Your task to perform on an android device: What's on my calendar today? Image 0: 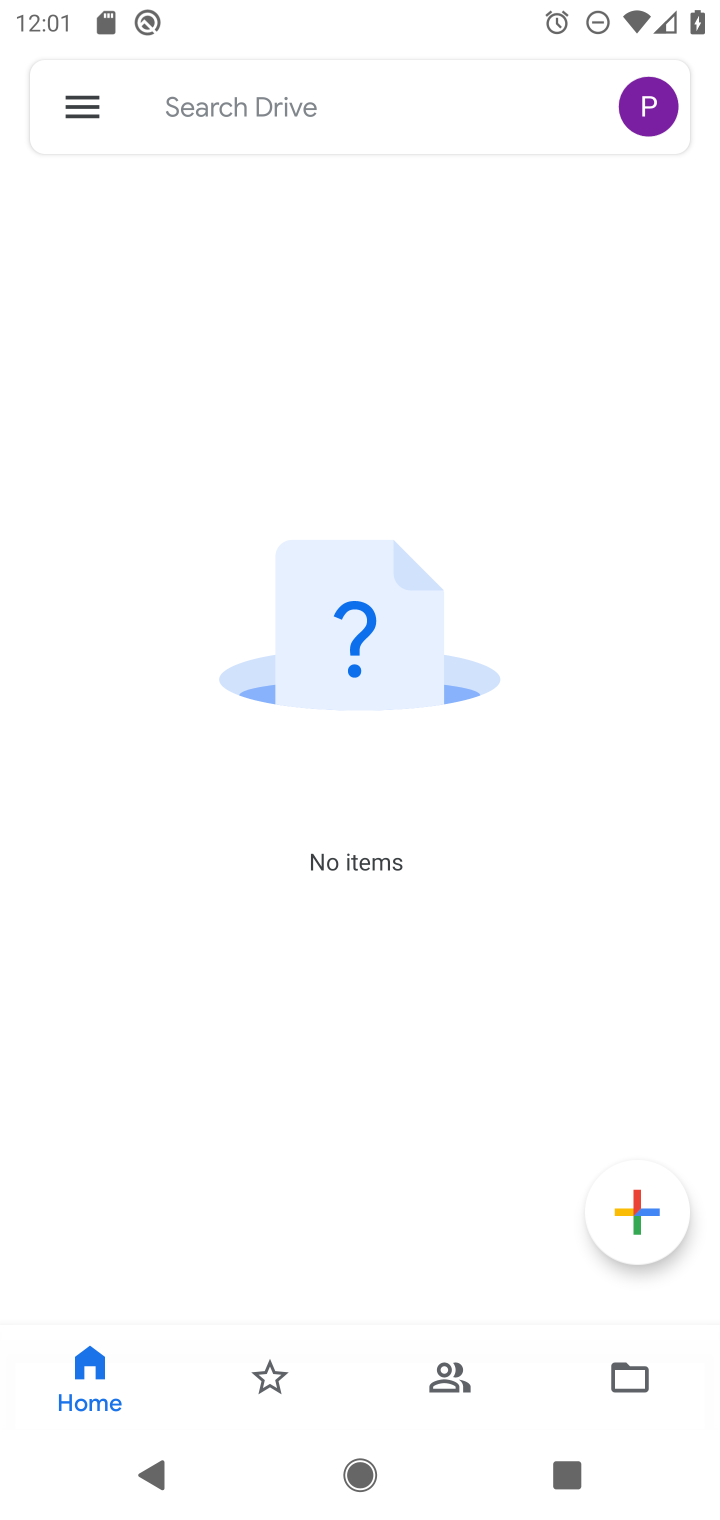
Step 0: press home button
Your task to perform on an android device: What's on my calendar today? Image 1: 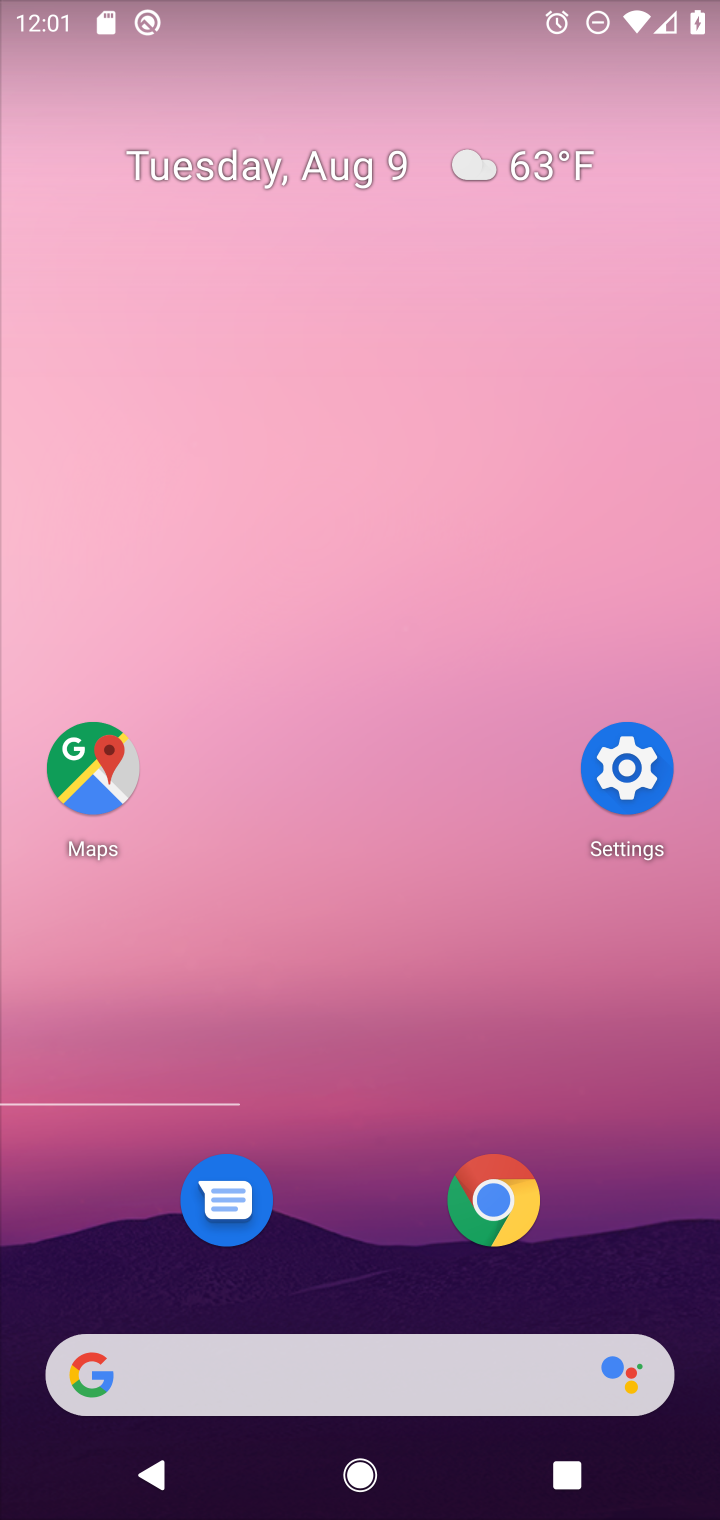
Step 1: drag from (328, 954) to (383, 476)
Your task to perform on an android device: What's on my calendar today? Image 2: 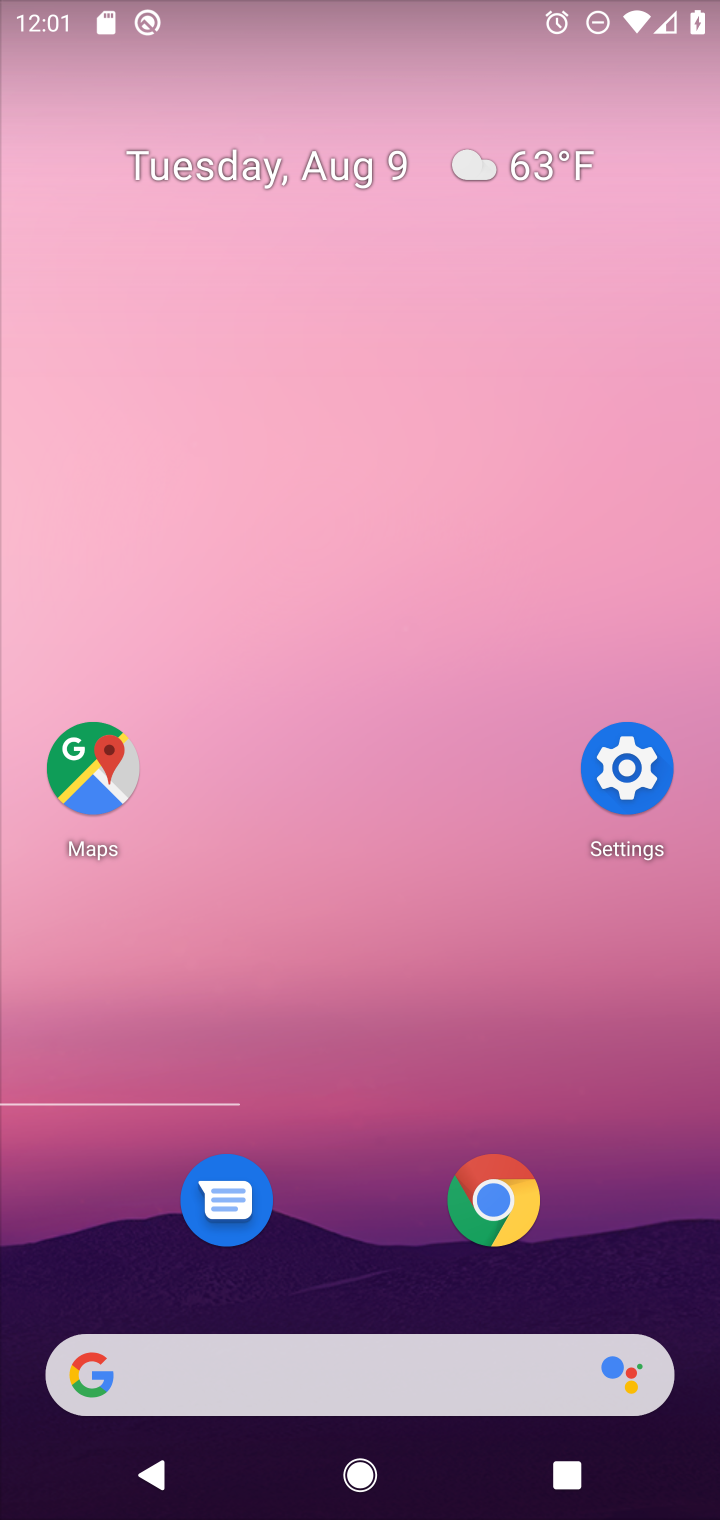
Step 2: drag from (361, 1363) to (480, 341)
Your task to perform on an android device: What's on my calendar today? Image 3: 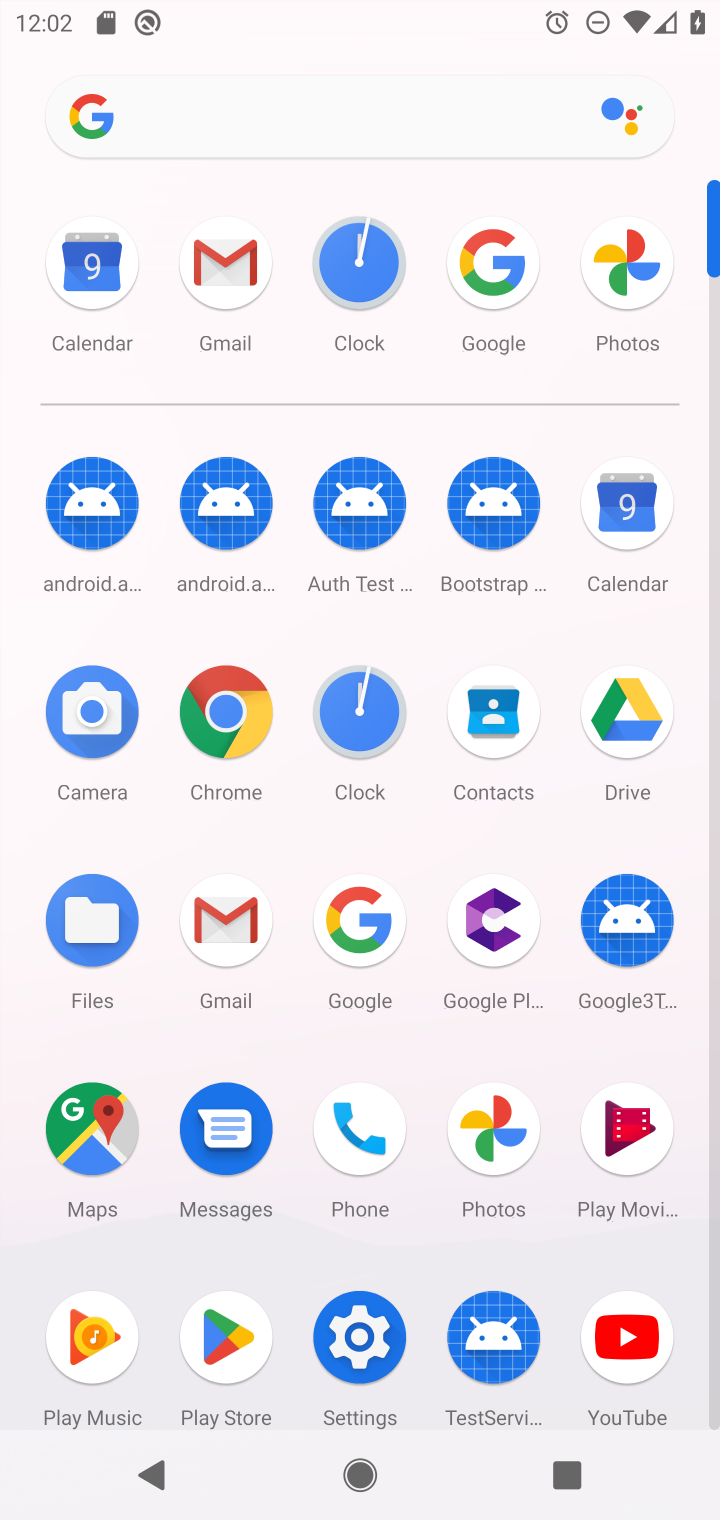
Step 3: click (634, 523)
Your task to perform on an android device: What's on my calendar today? Image 4: 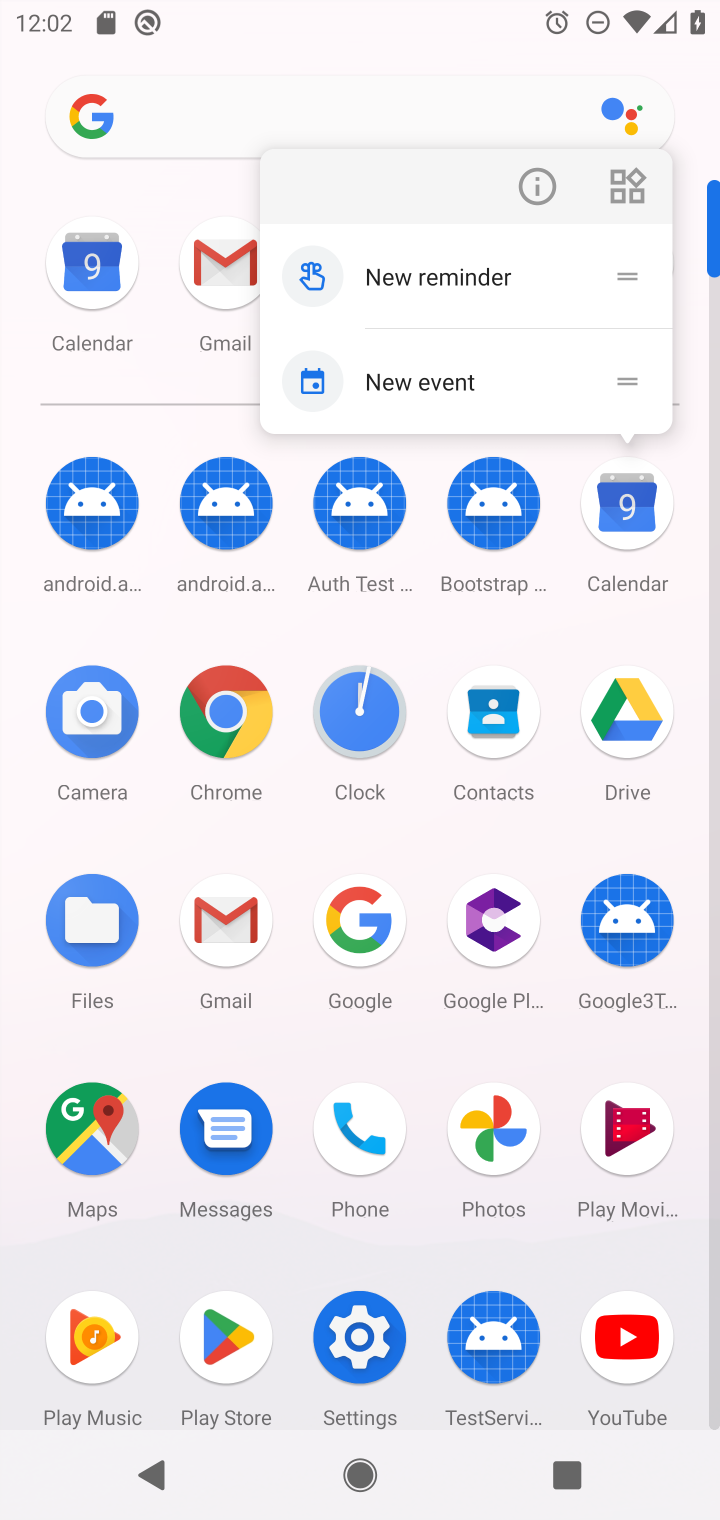
Step 4: click (634, 521)
Your task to perform on an android device: What's on my calendar today? Image 5: 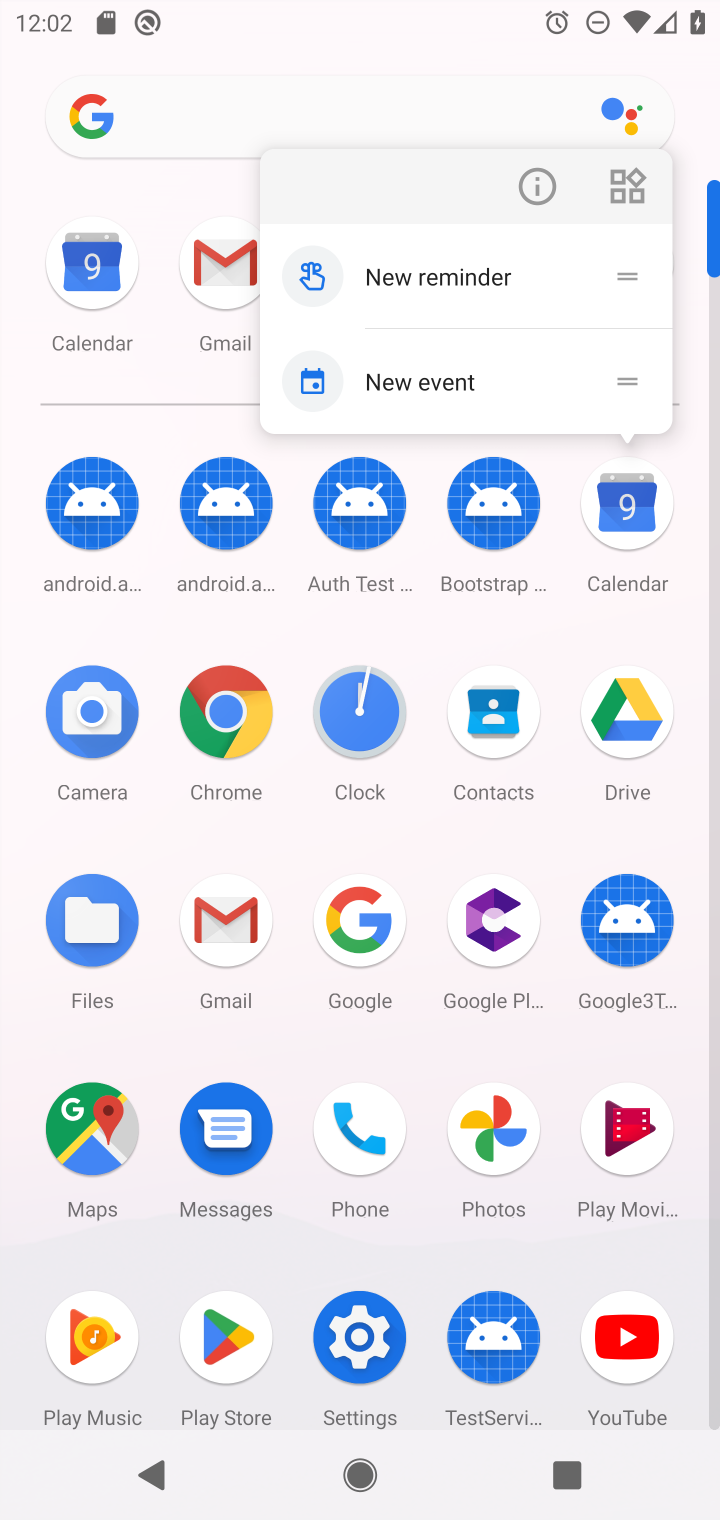
Step 5: click (618, 513)
Your task to perform on an android device: What's on my calendar today? Image 6: 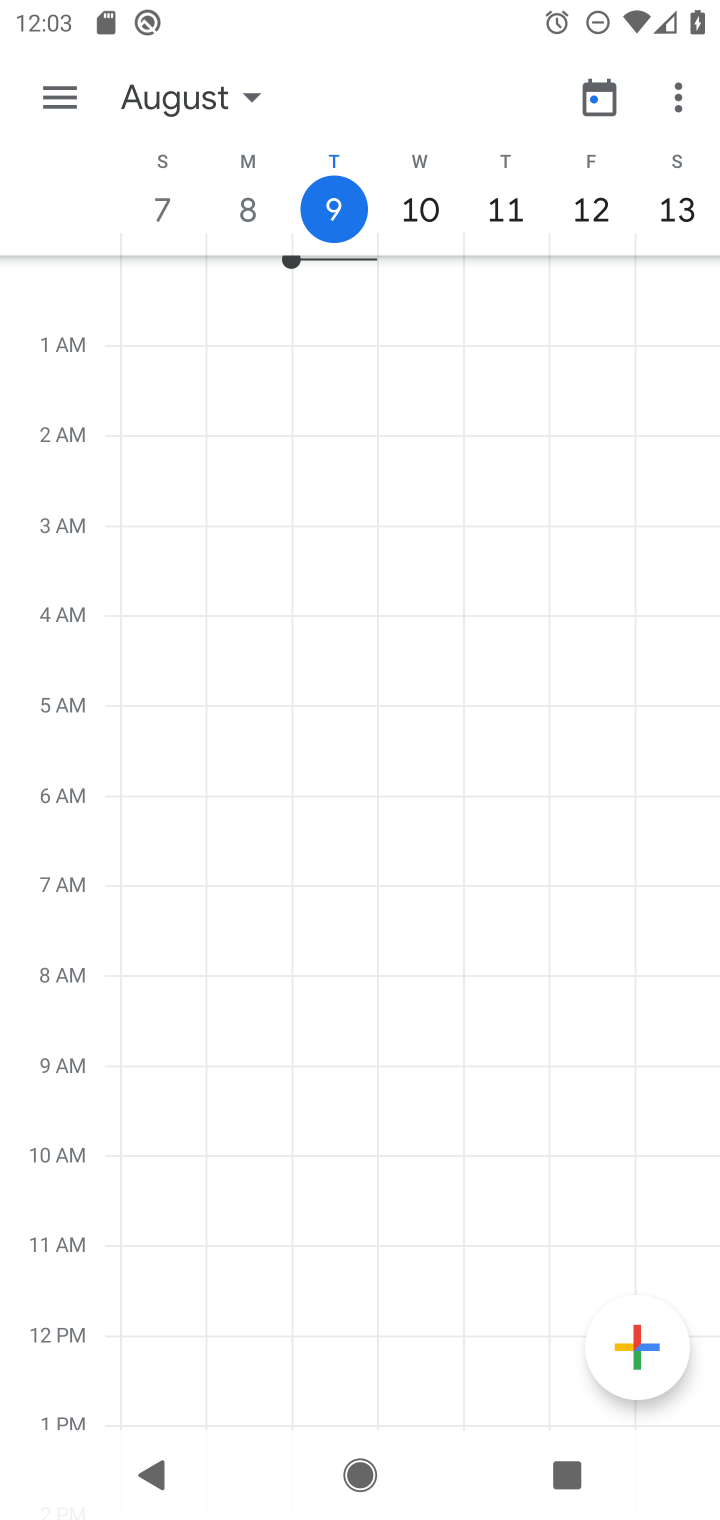
Step 6: click (173, 98)
Your task to perform on an android device: What's on my calendar today? Image 7: 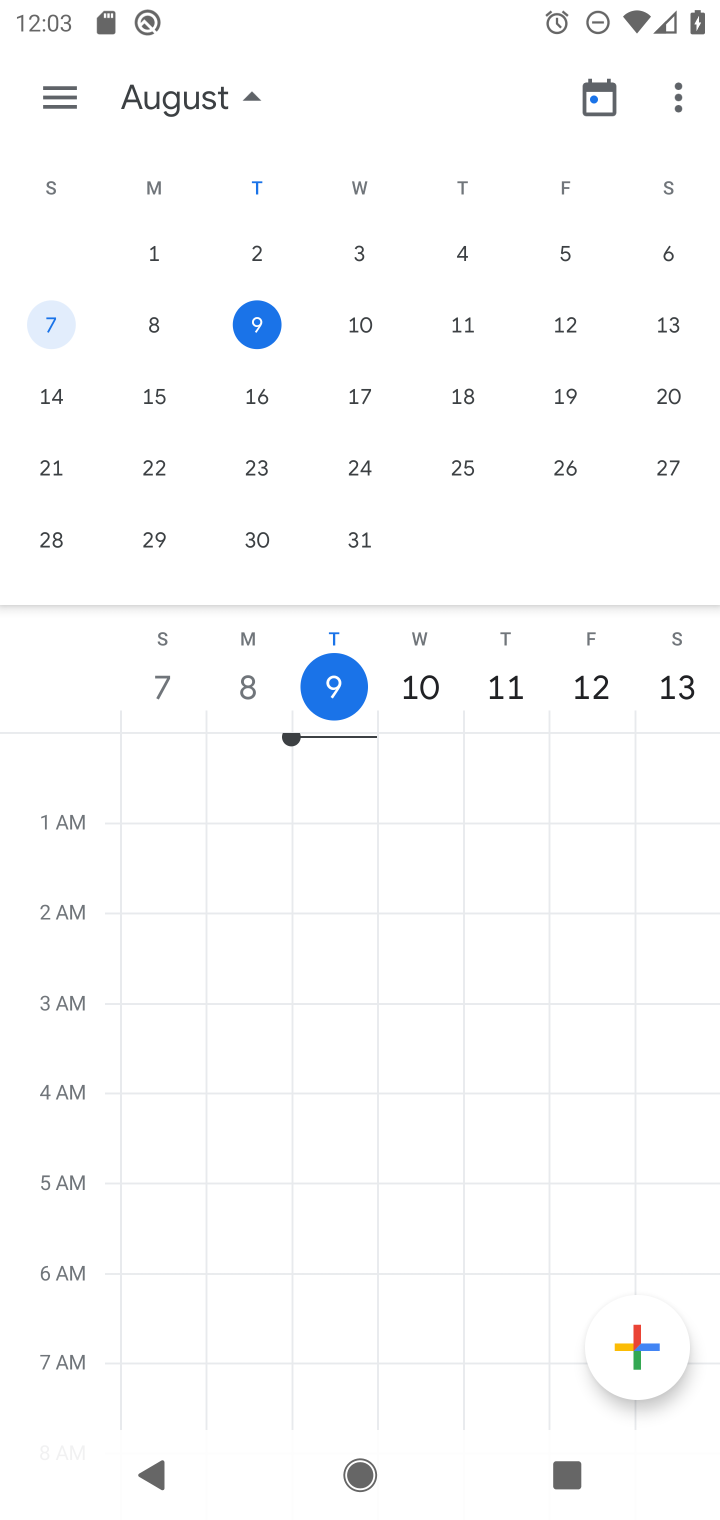
Step 7: click (274, 318)
Your task to perform on an android device: What's on my calendar today? Image 8: 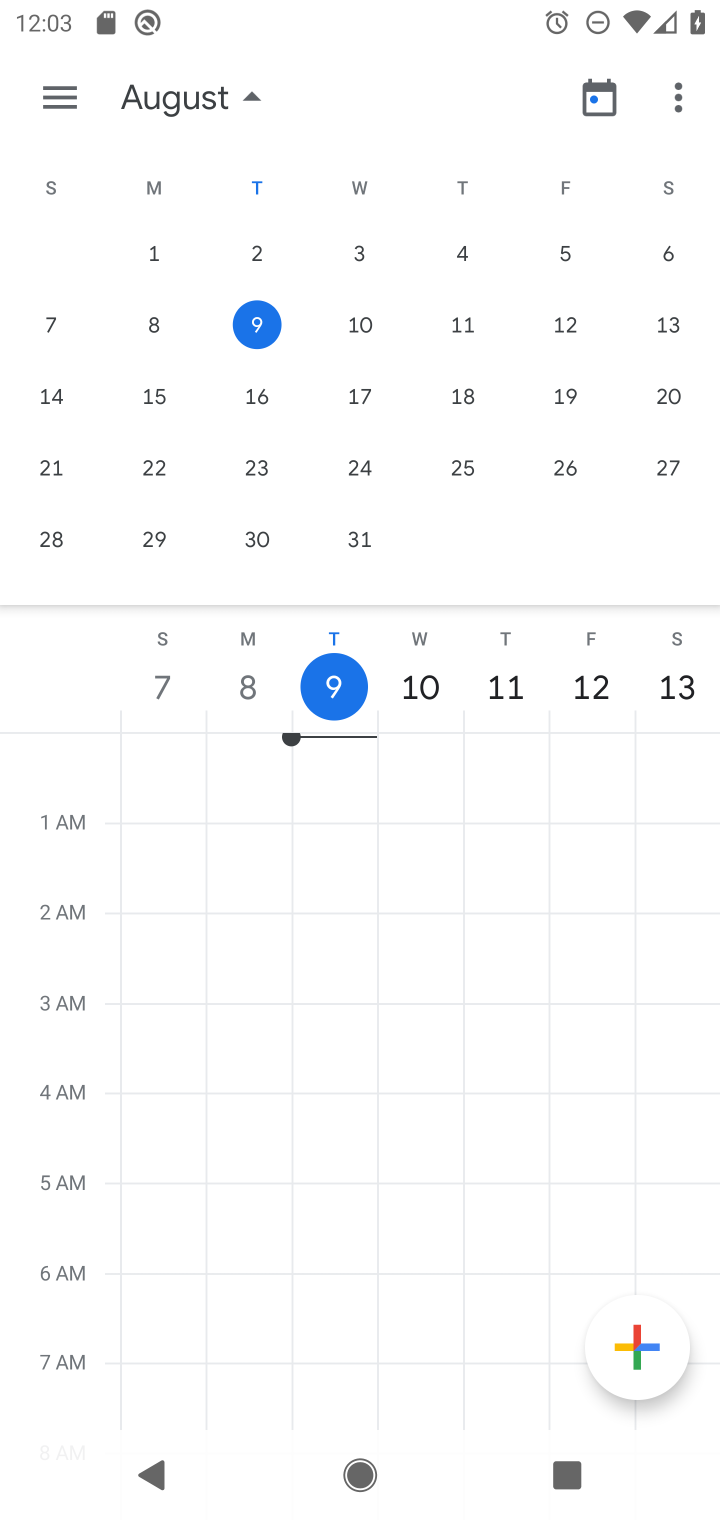
Step 8: click (76, 97)
Your task to perform on an android device: What's on my calendar today? Image 9: 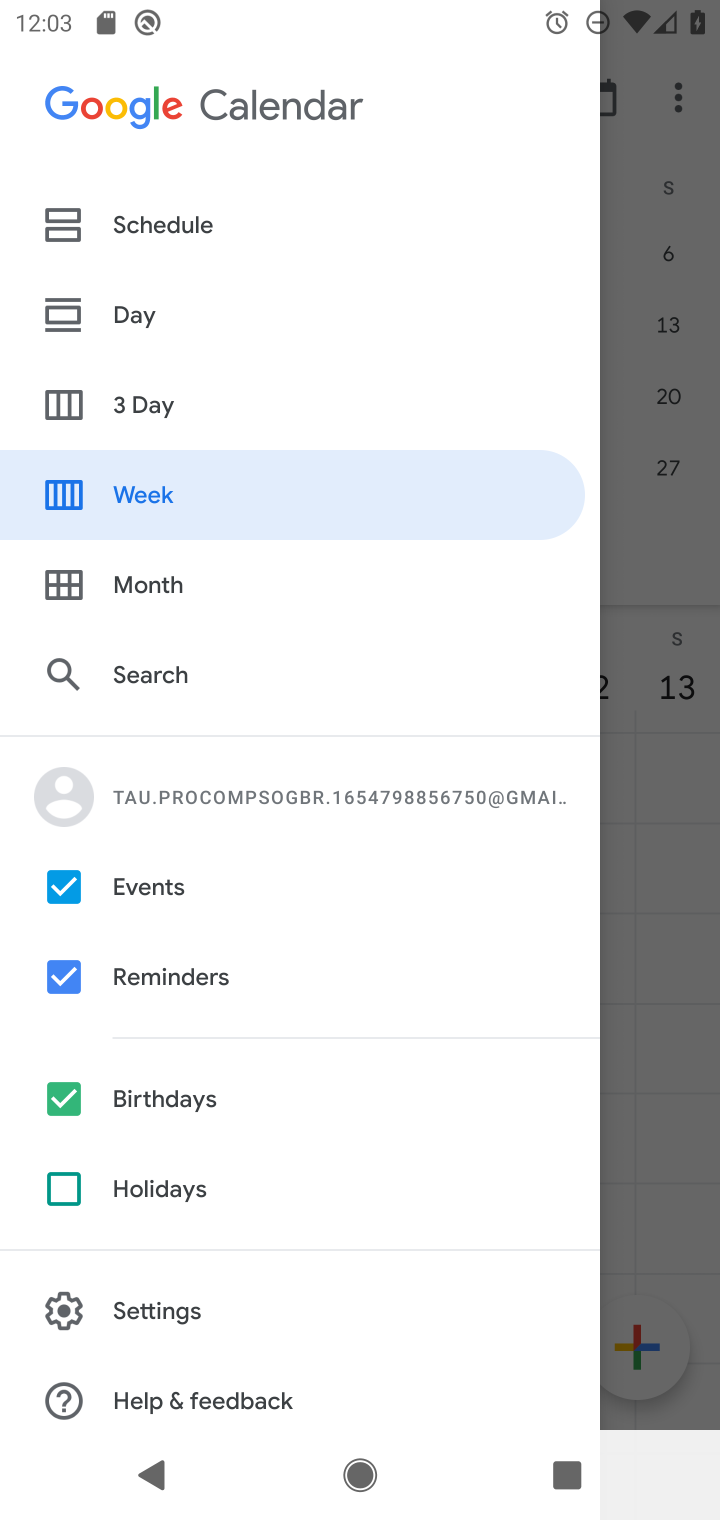
Step 9: click (128, 313)
Your task to perform on an android device: What's on my calendar today? Image 10: 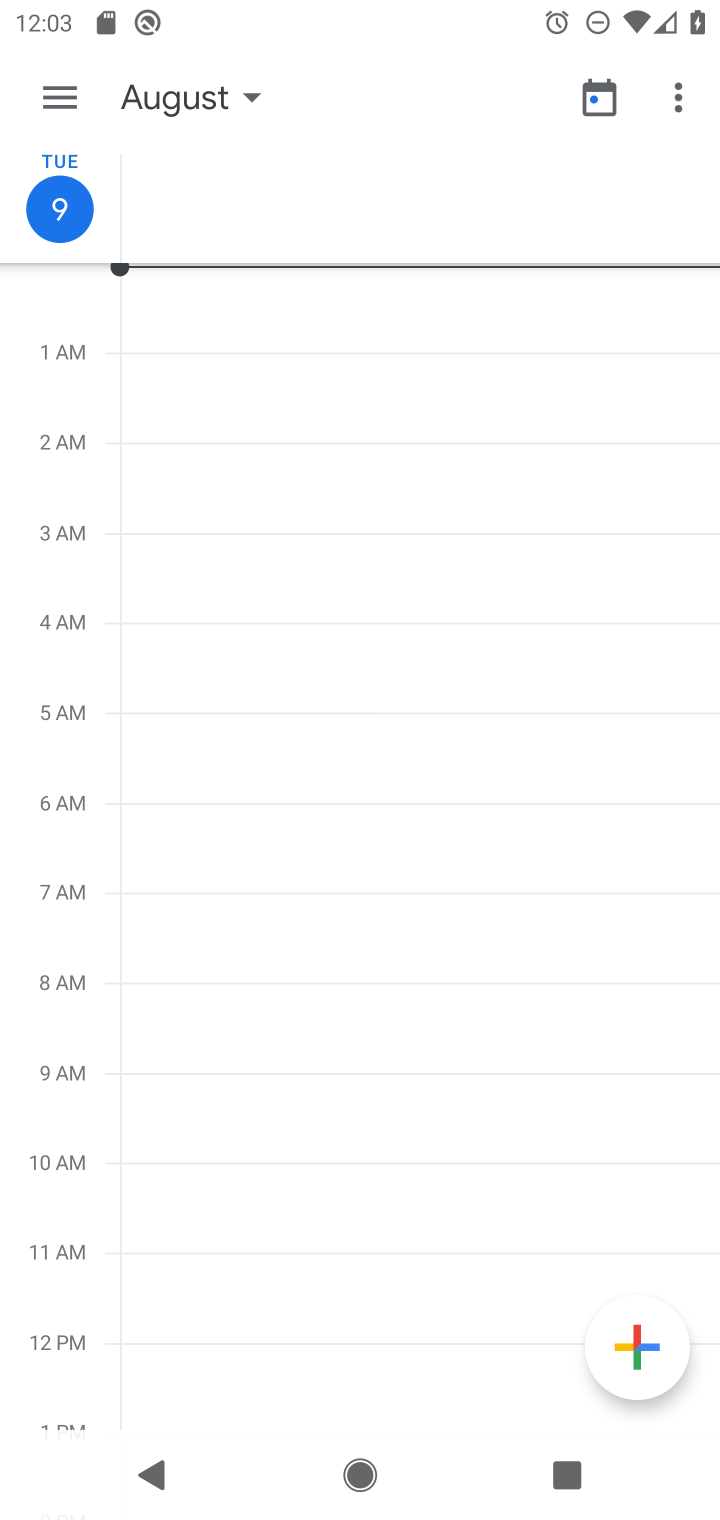
Step 10: click (61, 95)
Your task to perform on an android device: What's on my calendar today? Image 11: 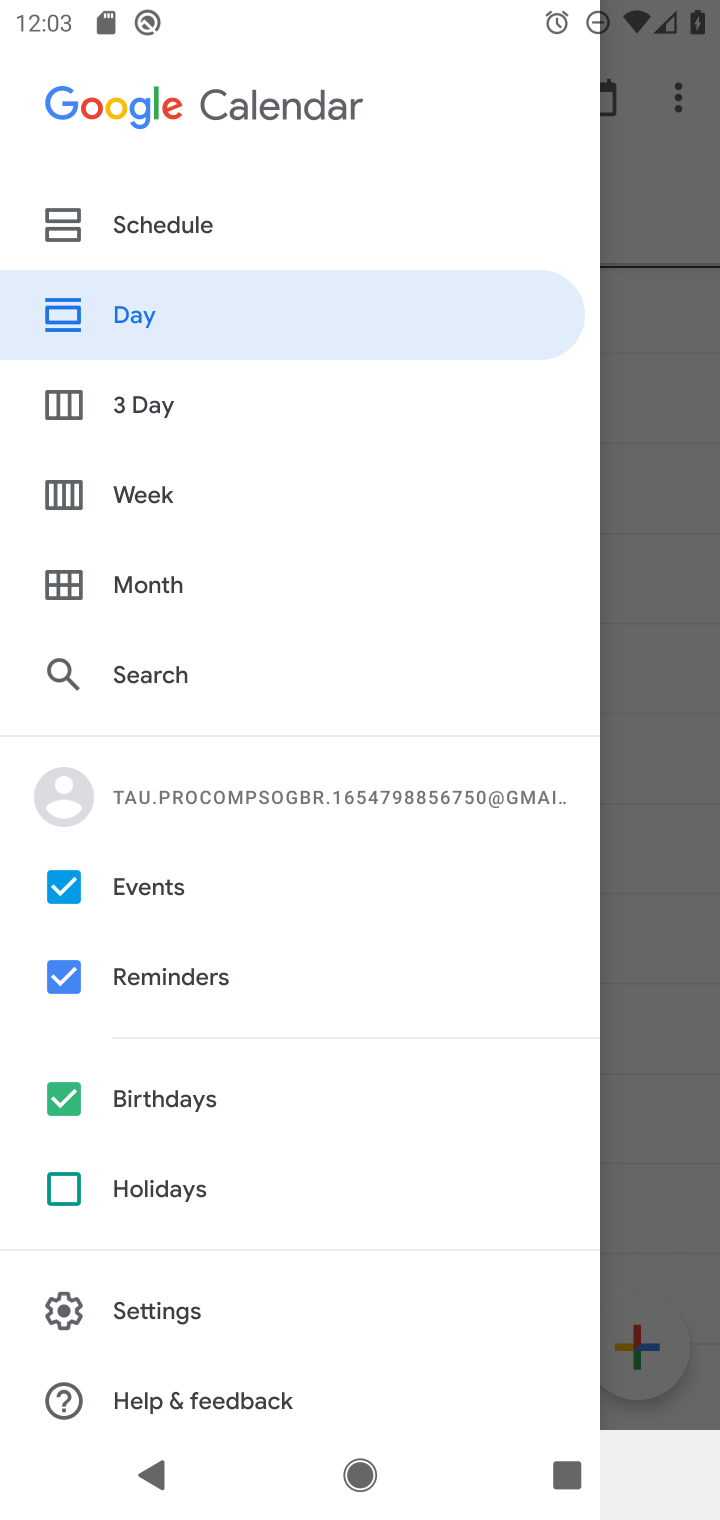
Step 11: click (193, 234)
Your task to perform on an android device: What's on my calendar today? Image 12: 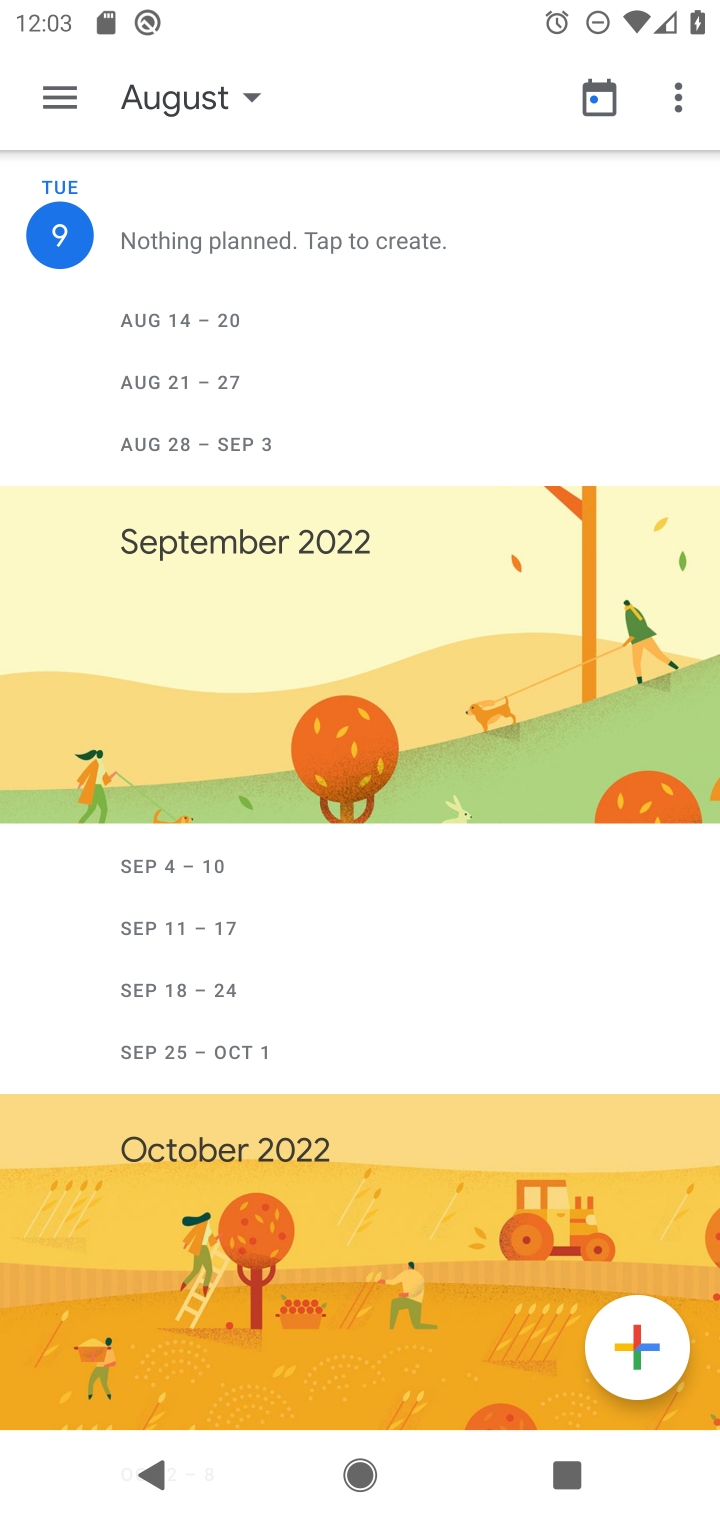
Step 12: task complete